Your task to perform on an android device: turn on notifications settings in the gmail app Image 0: 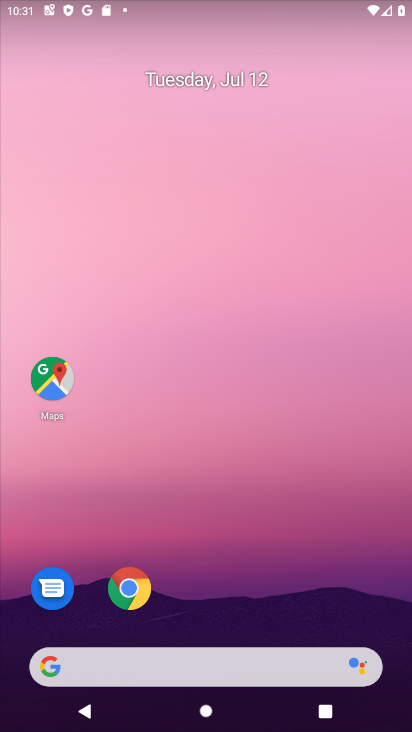
Step 0: drag from (324, 609) to (276, 14)
Your task to perform on an android device: turn on notifications settings in the gmail app Image 1: 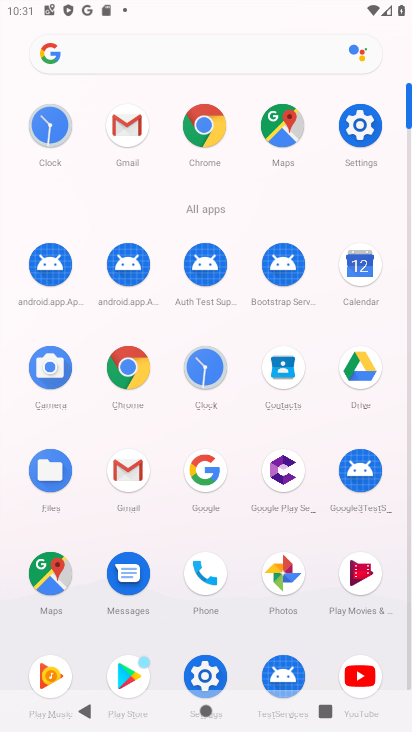
Step 1: click (128, 467)
Your task to perform on an android device: turn on notifications settings in the gmail app Image 2: 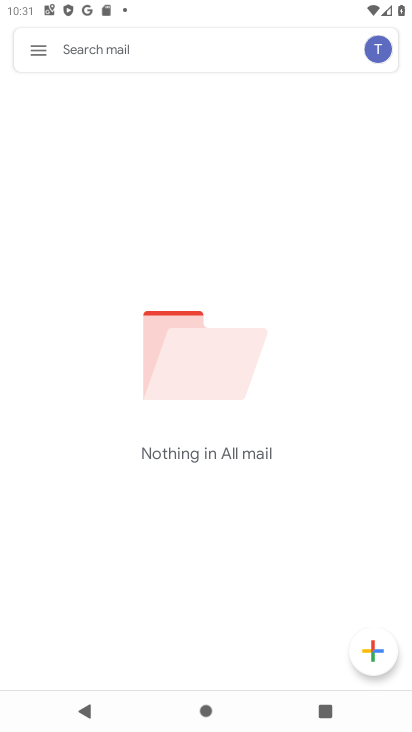
Step 2: press home button
Your task to perform on an android device: turn on notifications settings in the gmail app Image 3: 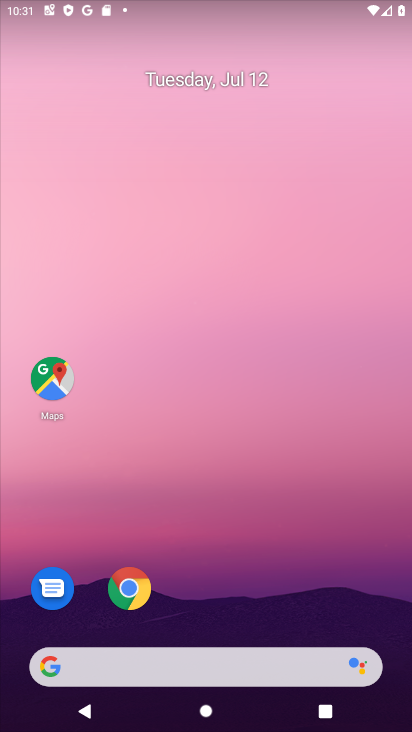
Step 3: drag from (246, 501) to (235, 26)
Your task to perform on an android device: turn on notifications settings in the gmail app Image 4: 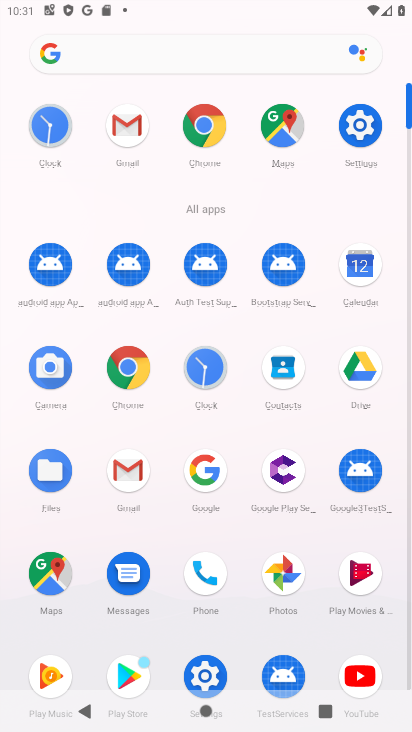
Step 4: click (130, 464)
Your task to perform on an android device: turn on notifications settings in the gmail app Image 5: 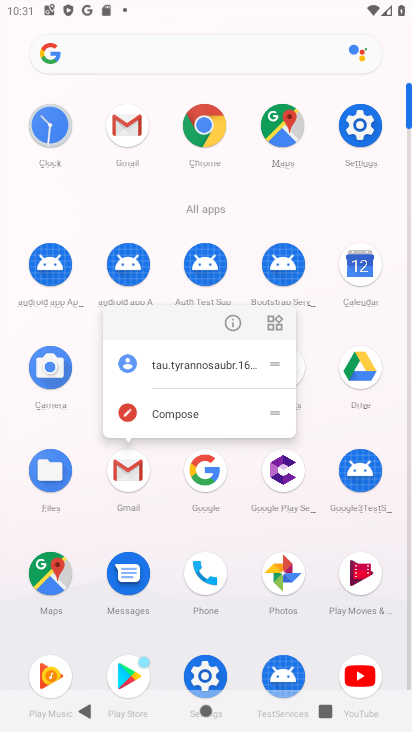
Step 5: click (239, 320)
Your task to perform on an android device: turn on notifications settings in the gmail app Image 6: 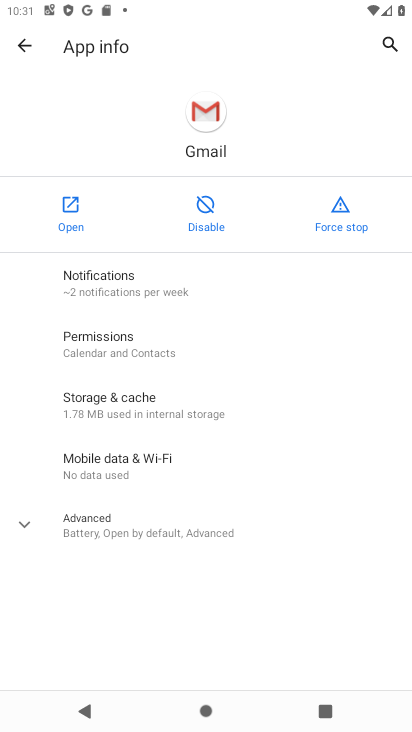
Step 6: click (138, 289)
Your task to perform on an android device: turn on notifications settings in the gmail app Image 7: 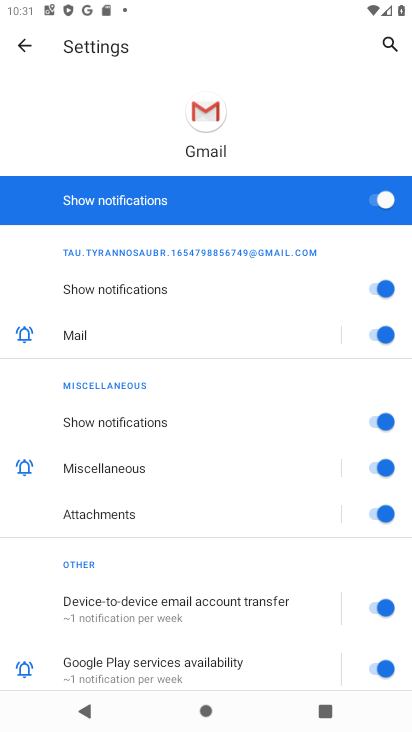
Step 7: task complete